Your task to perform on an android device: Play some music on YouTube Image 0: 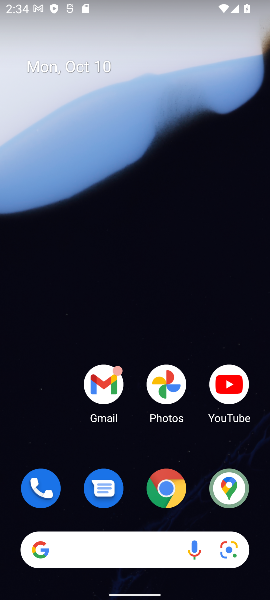
Step 0: click (239, 378)
Your task to perform on an android device: Play some music on YouTube Image 1: 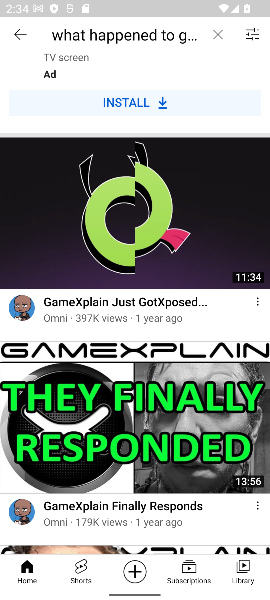
Step 1: click (28, 582)
Your task to perform on an android device: Play some music on YouTube Image 2: 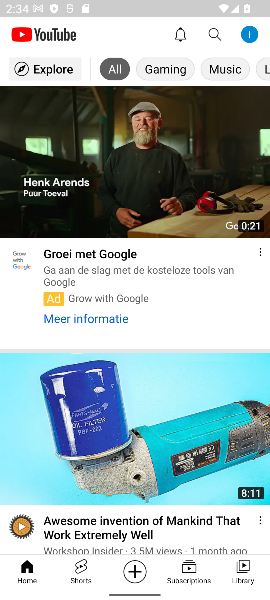
Step 2: drag from (133, 473) to (231, 124)
Your task to perform on an android device: Play some music on YouTube Image 3: 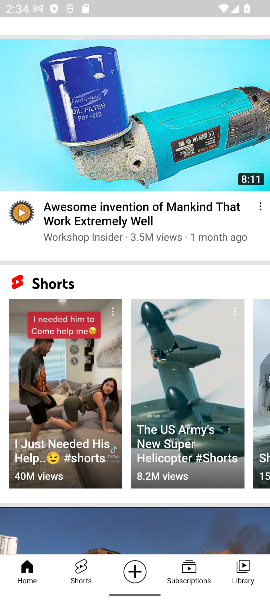
Step 3: drag from (246, 189) to (181, 578)
Your task to perform on an android device: Play some music on YouTube Image 4: 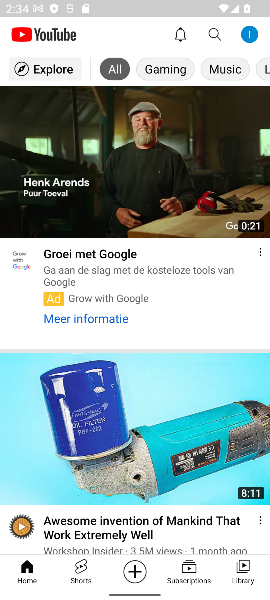
Step 4: click (223, 70)
Your task to perform on an android device: Play some music on YouTube Image 5: 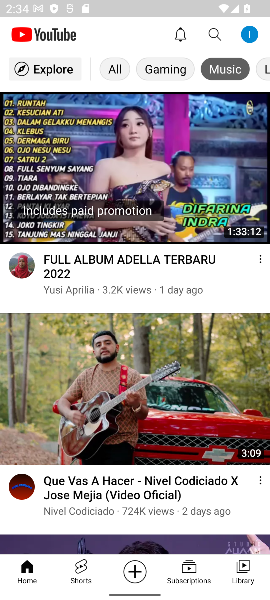
Step 5: click (138, 425)
Your task to perform on an android device: Play some music on YouTube Image 6: 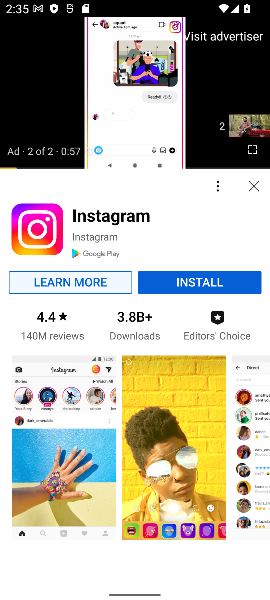
Step 6: click (129, 83)
Your task to perform on an android device: Play some music on YouTube Image 7: 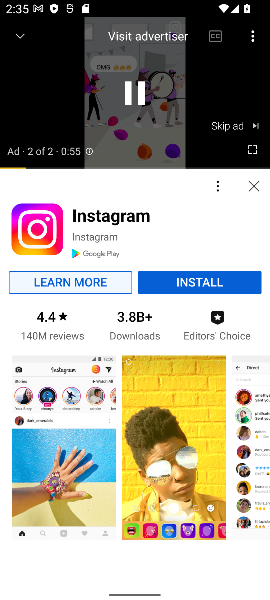
Step 7: click (142, 95)
Your task to perform on an android device: Play some music on YouTube Image 8: 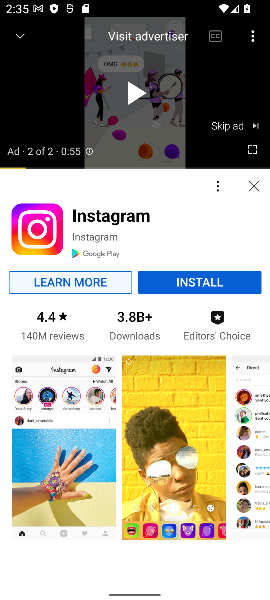
Step 8: task complete